Your task to perform on an android device: Open calendar and show me the first week of next month Image 0: 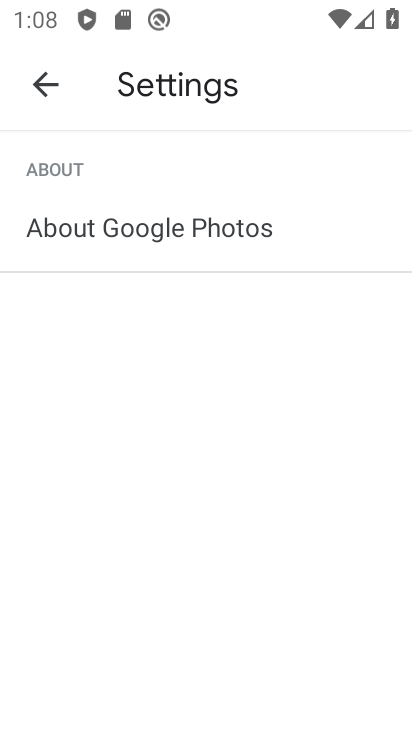
Step 0: press home button
Your task to perform on an android device: Open calendar and show me the first week of next month Image 1: 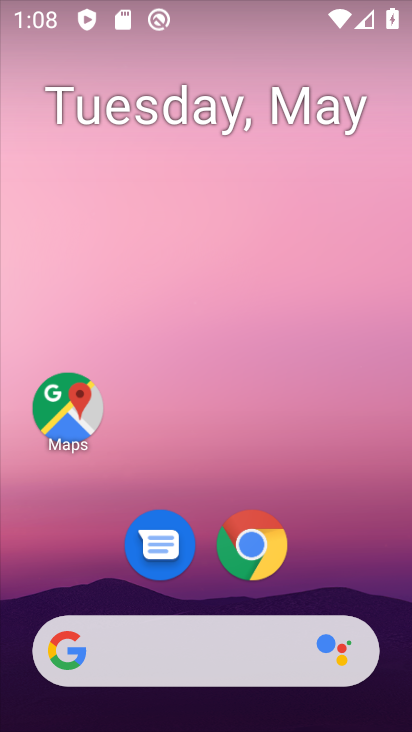
Step 1: drag from (388, 599) to (323, 109)
Your task to perform on an android device: Open calendar and show me the first week of next month Image 2: 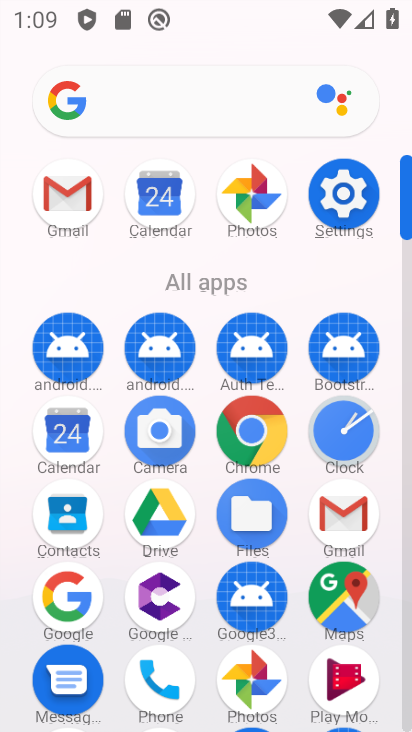
Step 2: click (407, 707)
Your task to perform on an android device: Open calendar and show me the first week of next month Image 3: 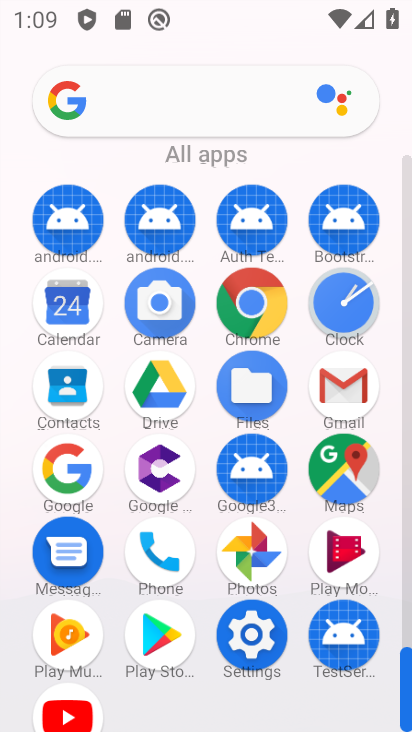
Step 3: click (59, 302)
Your task to perform on an android device: Open calendar and show me the first week of next month Image 4: 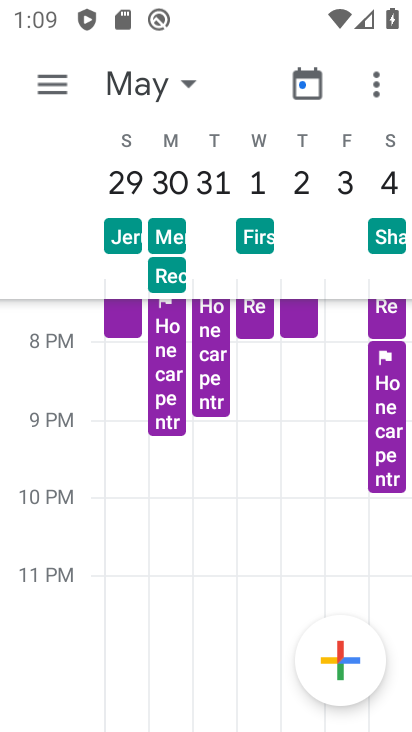
Step 4: click (172, 81)
Your task to perform on an android device: Open calendar and show me the first week of next month Image 5: 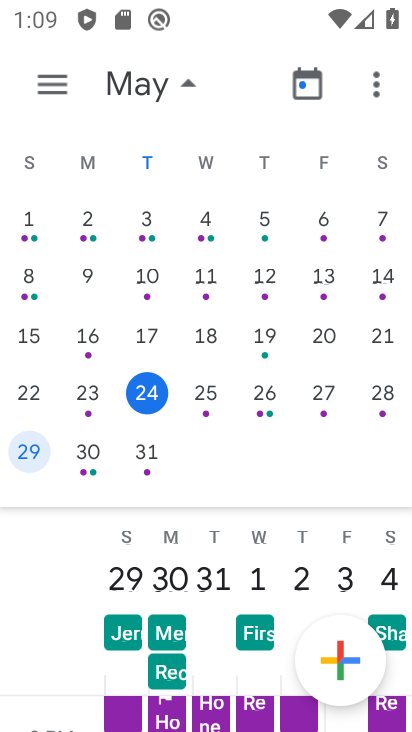
Step 5: drag from (376, 256) to (22, 258)
Your task to perform on an android device: Open calendar and show me the first week of next month Image 6: 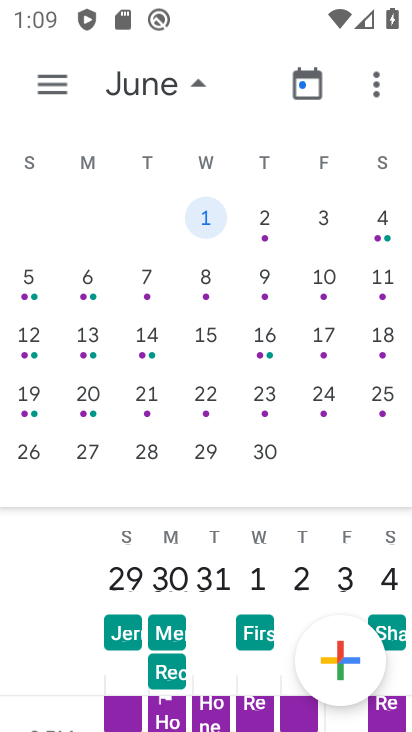
Step 6: click (198, 211)
Your task to perform on an android device: Open calendar and show me the first week of next month Image 7: 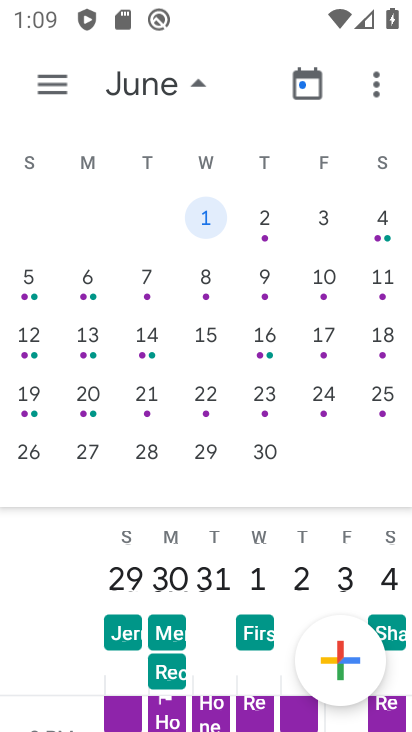
Step 7: drag from (217, 525) to (220, 159)
Your task to perform on an android device: Open calendar and show me the first week of next month Image 8: 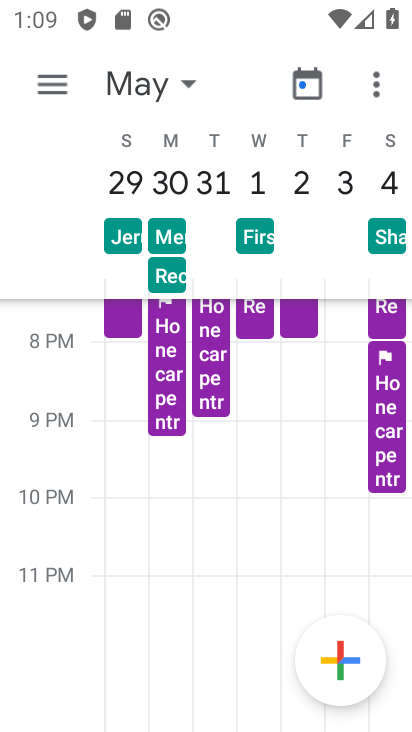
Step 8: drag from (273, 401) to (228, 685)
Your task to perform on an android device: Open calendar and show me the first week of next month Image 9: 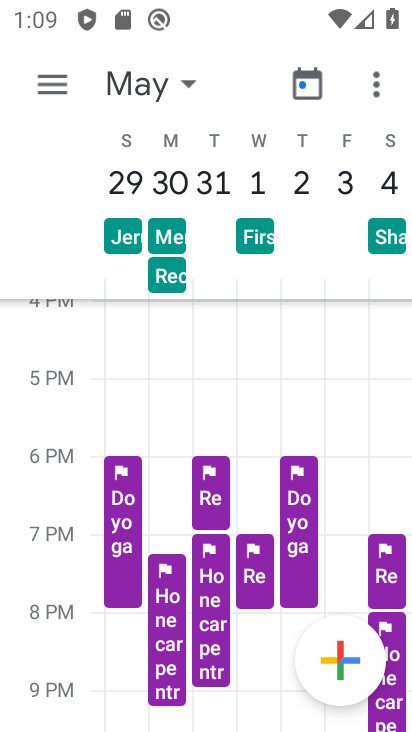
Step 9: drag from (231, 317) to (239, 553)
Your task to perform on an android device: Open calendar and show me the first week of next month Image 10: 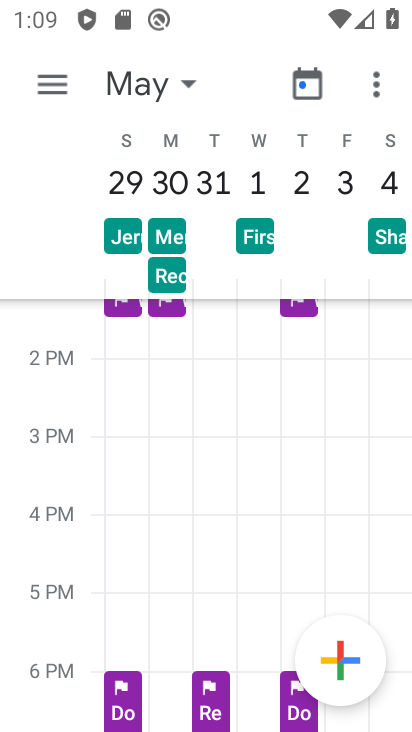
Step 10: drag from (241, 324) to (220, 616)
Your task to perform on an android device: Open calendar and show me the first week of next month Image 11: 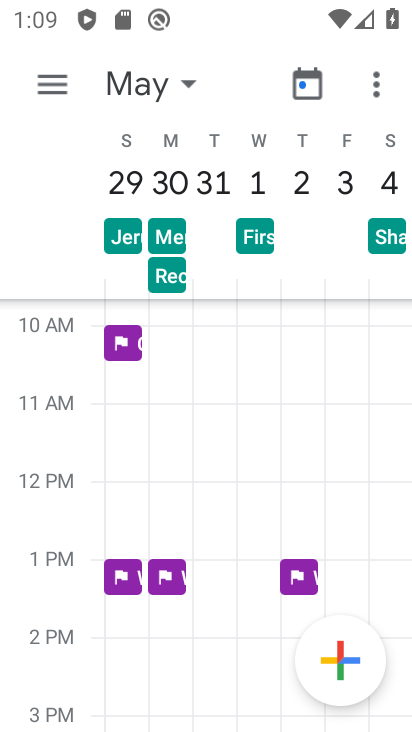
Step 11: drag from (226, 340) to (225, 636)
Your task to perform on an android device: Open calendar and show me the first week of next month Image 12: 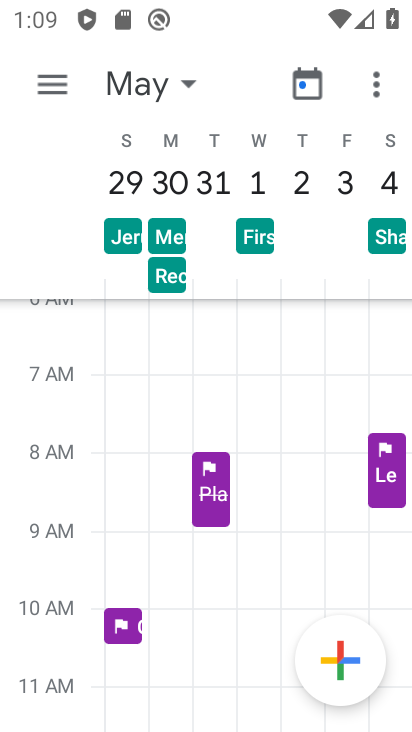
Step 12: drag from (250, 337) to (234, 597)
Your task to perform on an android device: Open calendar and show me the first week of next month Image 13: 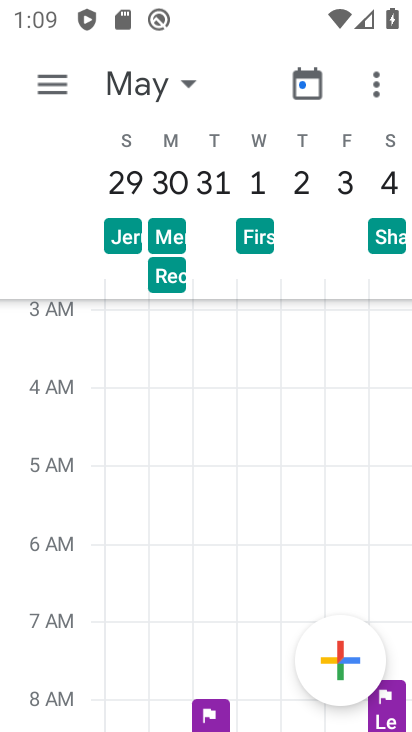
Step 13: drag from (189, 320) to (170, 646)
Your task to perform on an android device: Open calendar and show me the first week of next month Image 14: 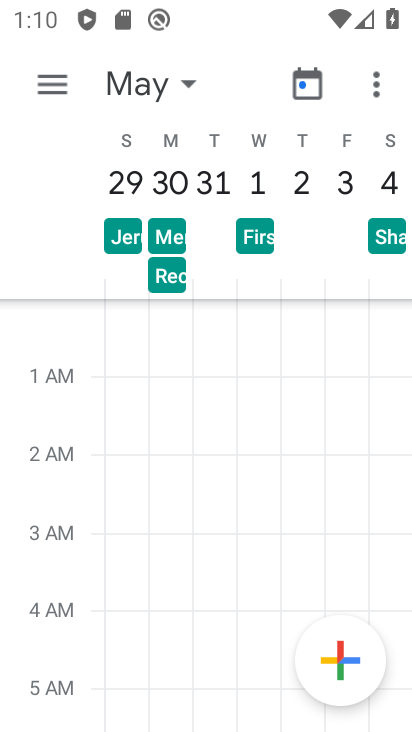
Step 14: click (180, 80)
Your task to perform on an android device: Open calendar and show me the first week of next month Image 15: 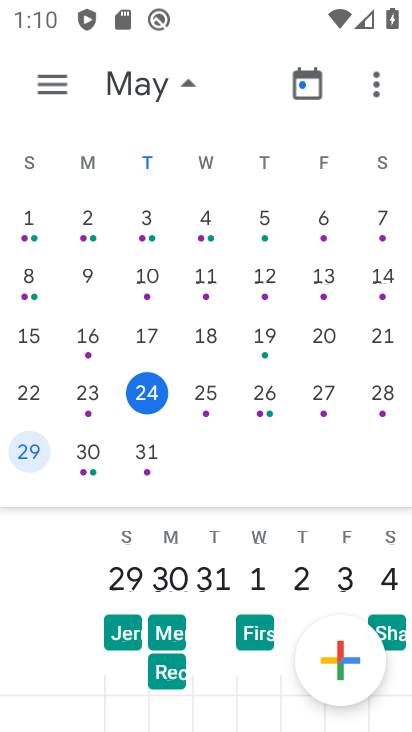
Step 15: drag from (382, 296) to (8, 291)
Your task to perform on an android device: Open calendar and show me the first week of next month Image 16: 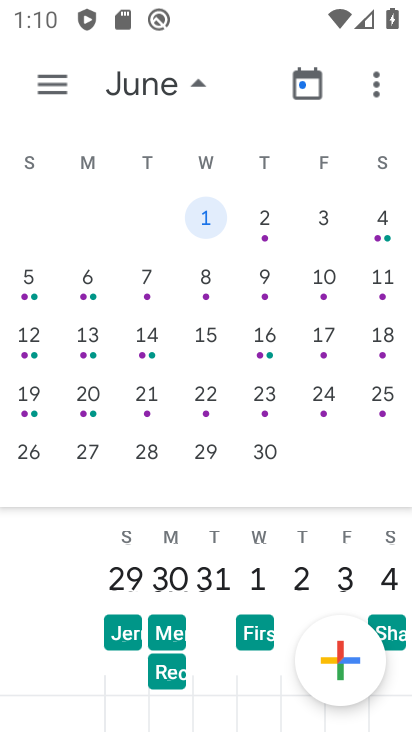
Step 16: click (207, 214)
Your task to perform on an android device: Open calendar and show me the first week of next month Image 17: 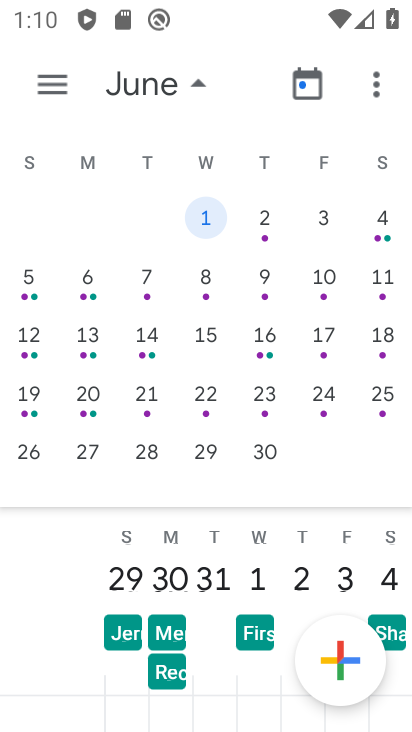
Step 17: drag from (231, 641) to (197, 179)
Your task to perform on an android device: Open calendar and show me the first week of next month Image 18: 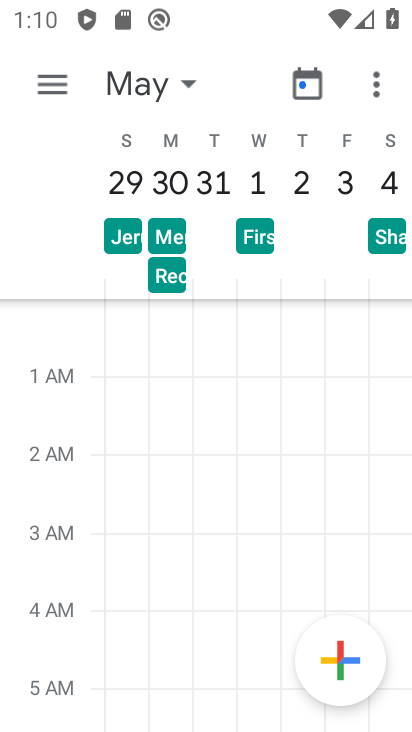
Step 18: click (185, 86)
Your task to perform on an android device: Open calendar and show me the first week of next month Image 19: 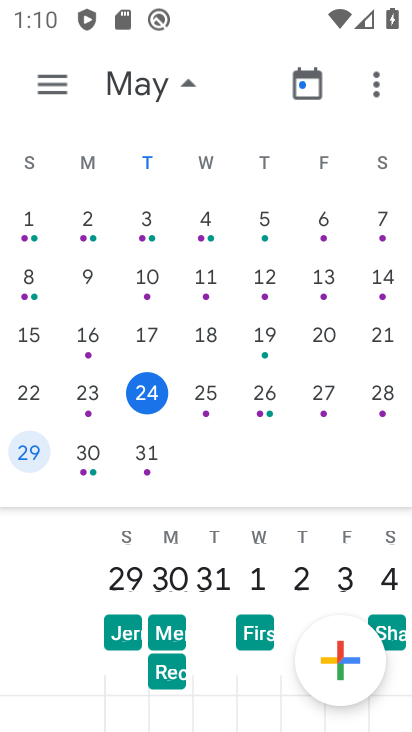
Step 19: drag from (380, 369) to (4, 338)
Your task to perform on an android device: Open calendar and show me the first week of next month Image 20: 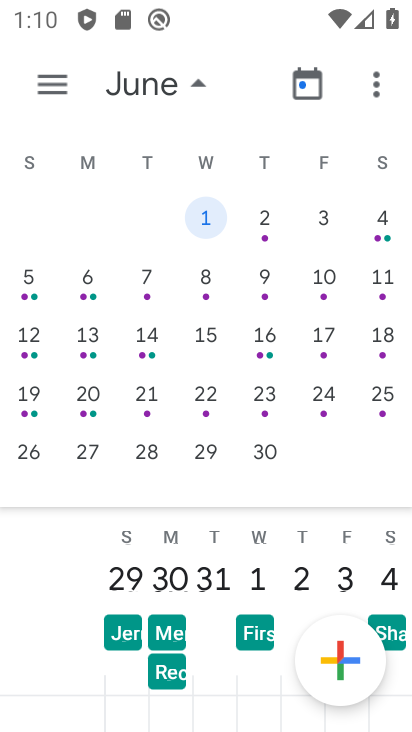
Step 20: click (26, 279)
Your task to perform on an android device: Open calendar and show me the first week of next month Image 21: 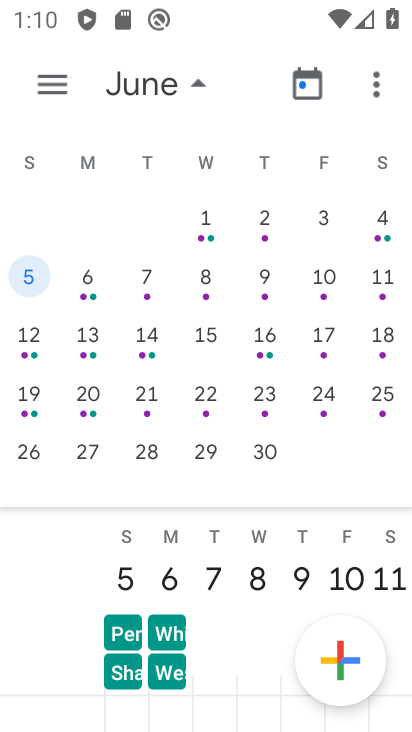
Step 21: task complete